Your task to perform on an android device: Search for "usb-a" on amazon.com, select the first entry, and add it to the cart. Image 0: 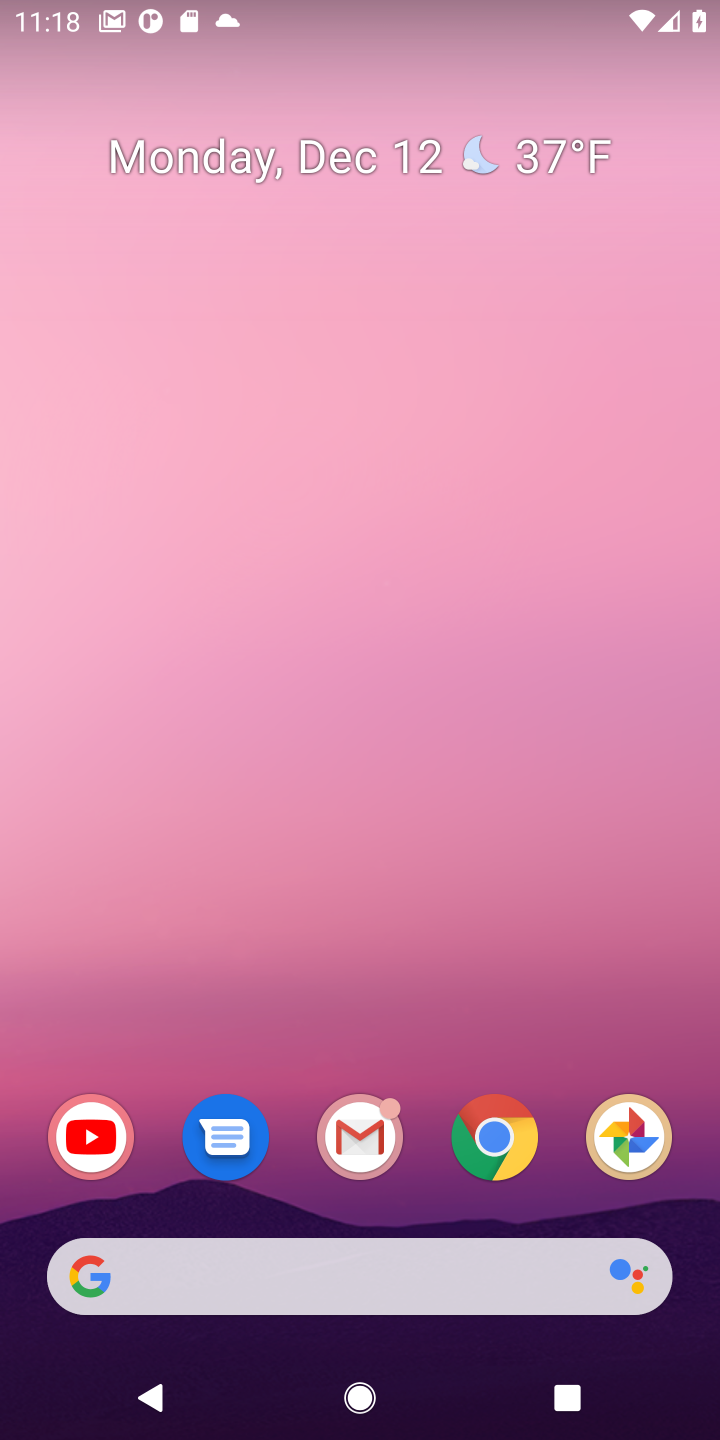
Step 0: click (406, 1297)
Your task to perform on an android device: Search for "usb-a" on amazon.com, select the first entry, and add it to the cart. Image 1: 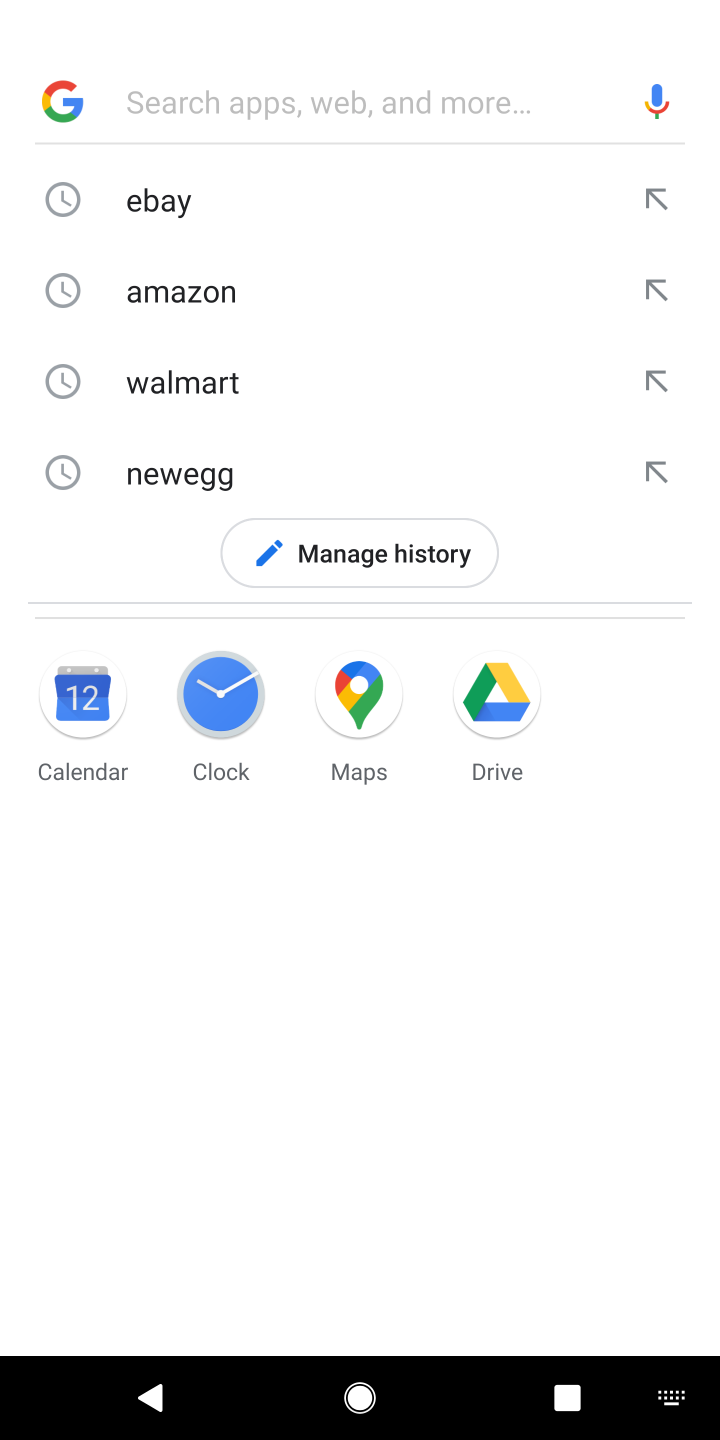
Step 1: click (134, 299)
Your task to perform on an android device: Search for "usb-a" on amazon.com, select the first entry, and add it to the cart. Image 2: 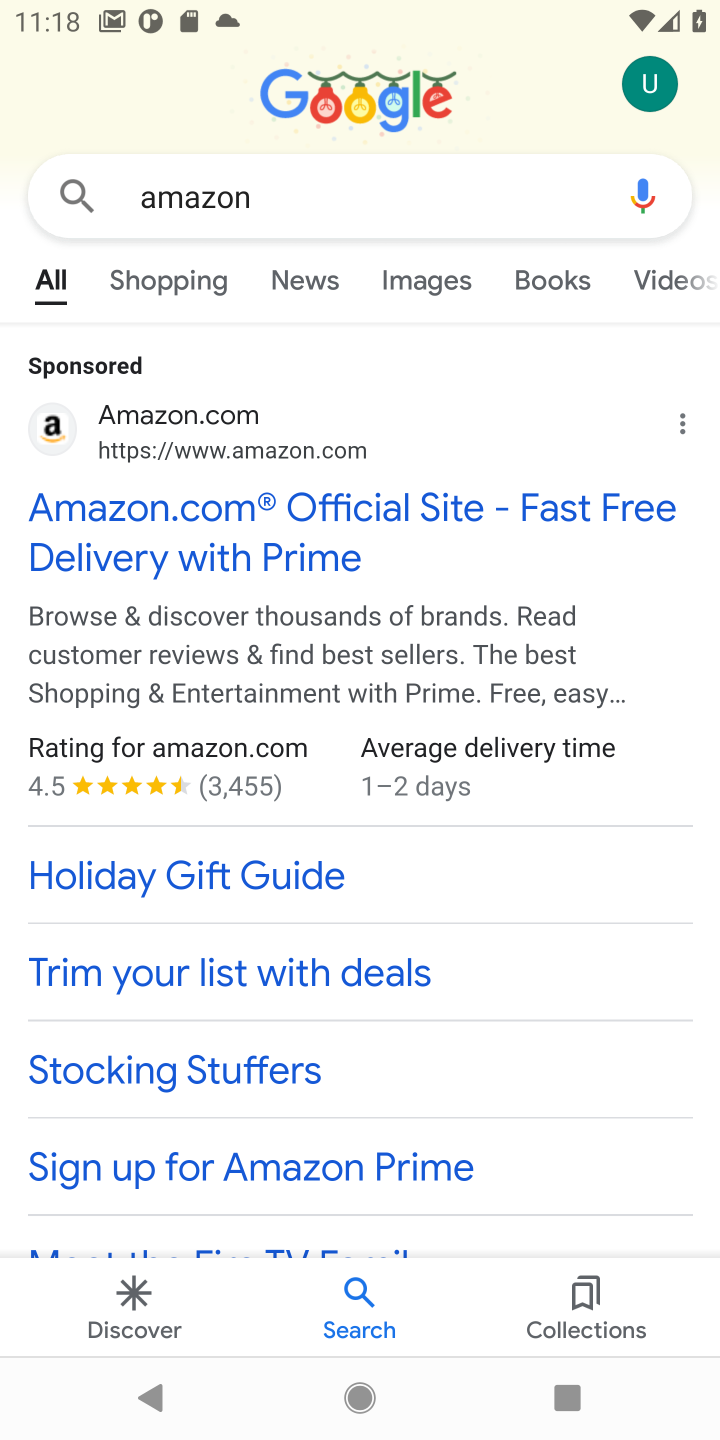
Step 2: click (138, 530)
Your task to perform on an android device: Search for "usb-a" on amazon.com, select the first entry, and add it to the cart. Image 3: 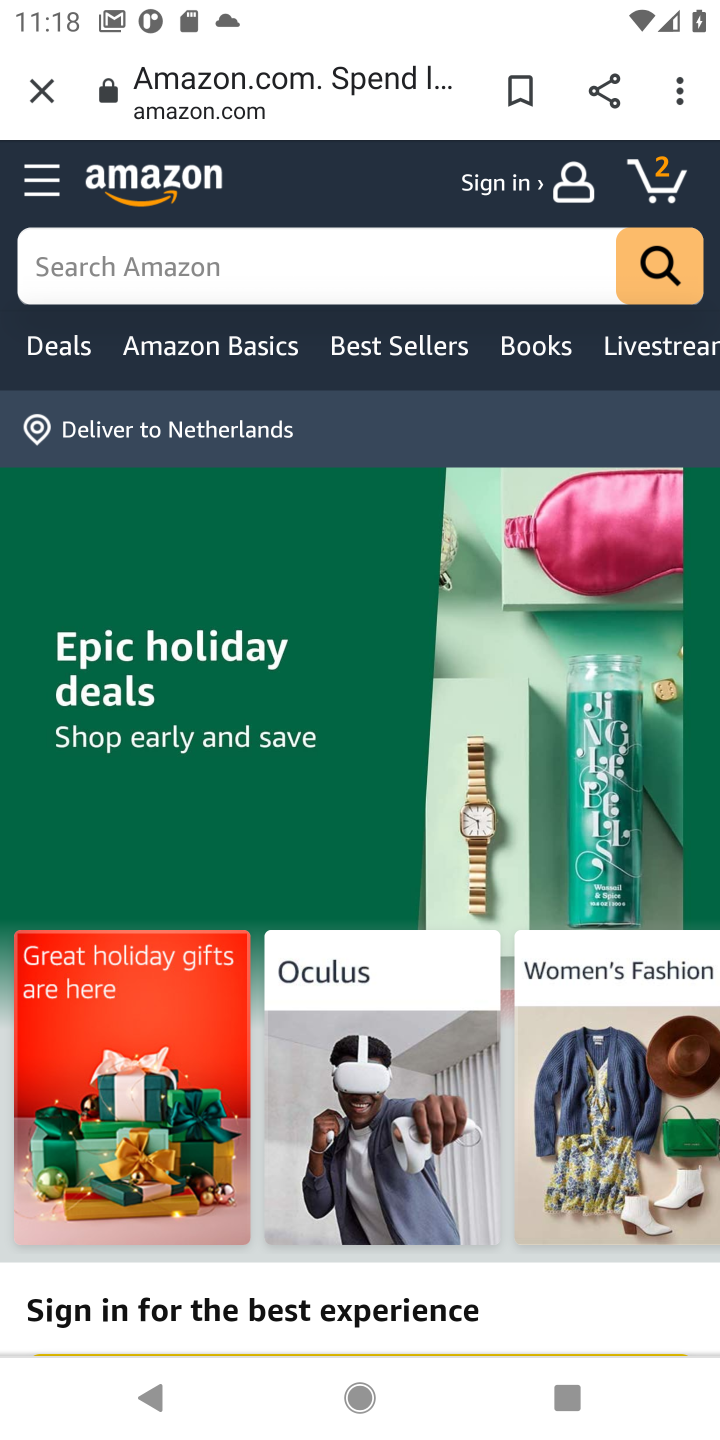
Step 3: click (298, 271)
Your task to perform on an android device: Search for "usb-a" on amazon.com, select the first entry, and add it to the cart. Image 4: 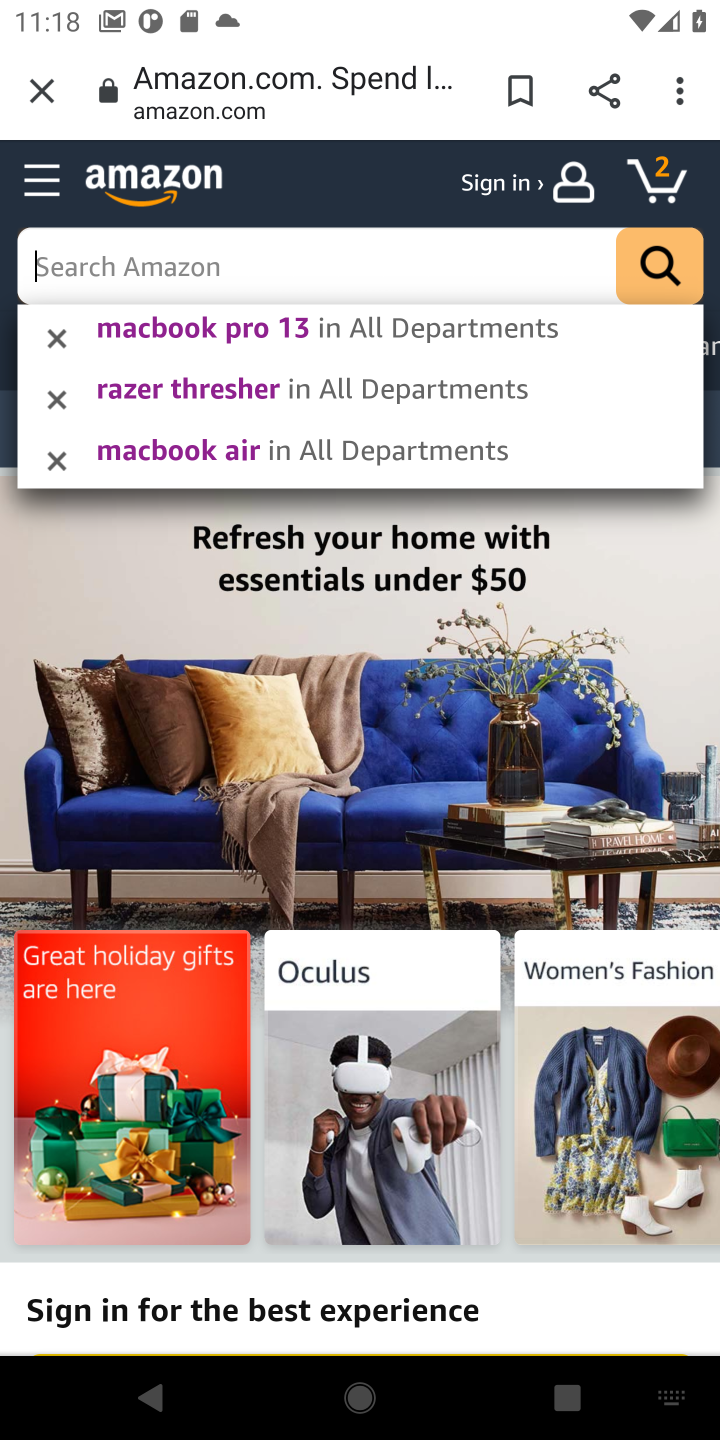
Step 4: type "usb-a"
Your task to perform on an android device: Search for "usb-a" on amazon.com, select the first entry, and add it to the cart. Image 5: 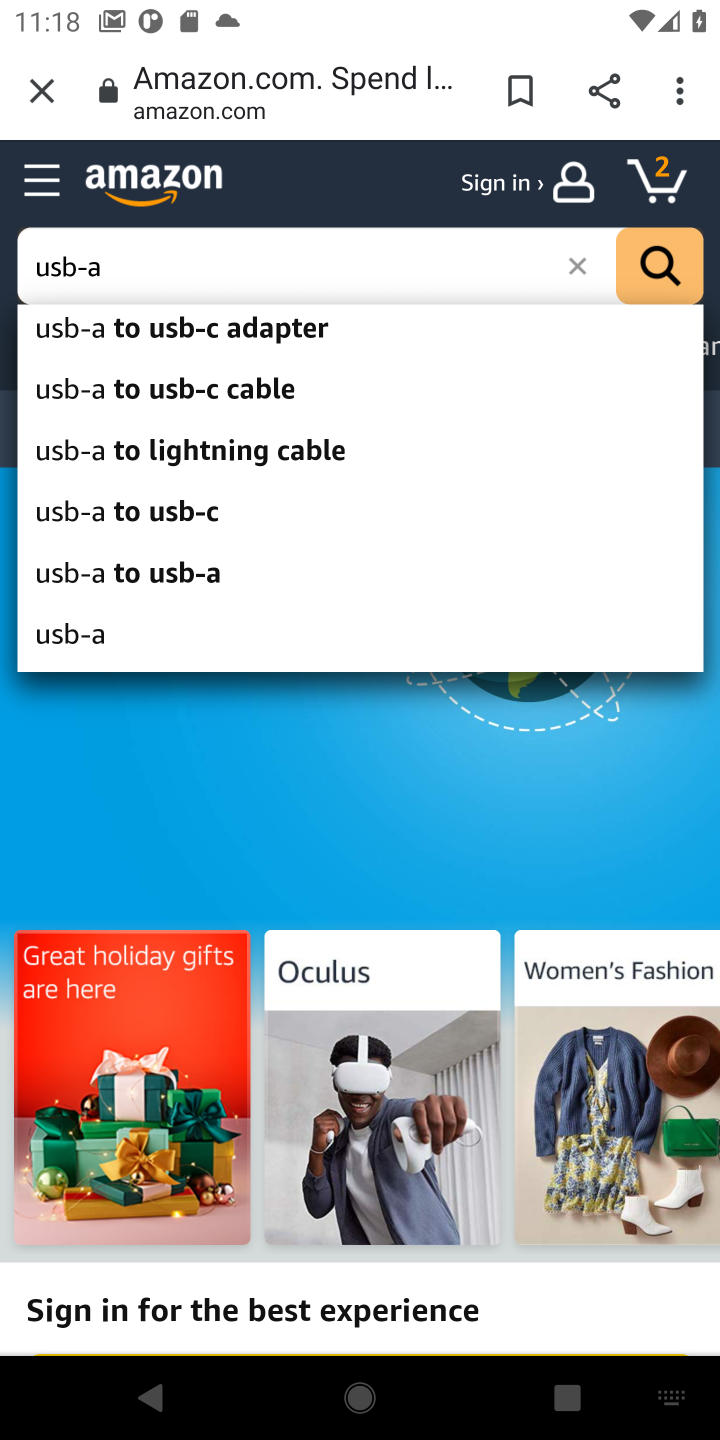
Step 5: click (657, 267)
Your task to perform on an android device: Search for "usb-a" on amazon.com, select the first entry, and add it to the cart. Image 6: 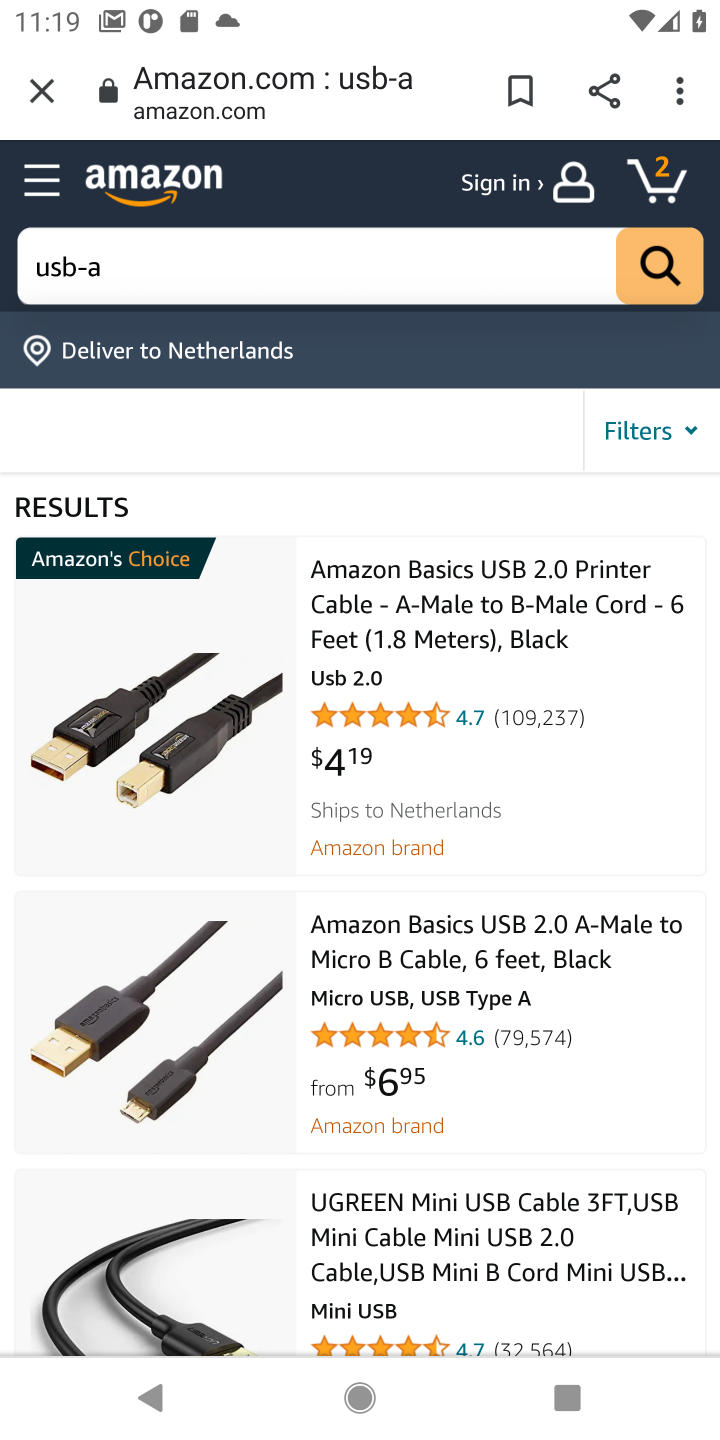
Step 6: click (362, 668)
Your task to perform on an android device: Search for "usb-a" on amazon.com, select the first entry, and add it to the cart. Image 7: 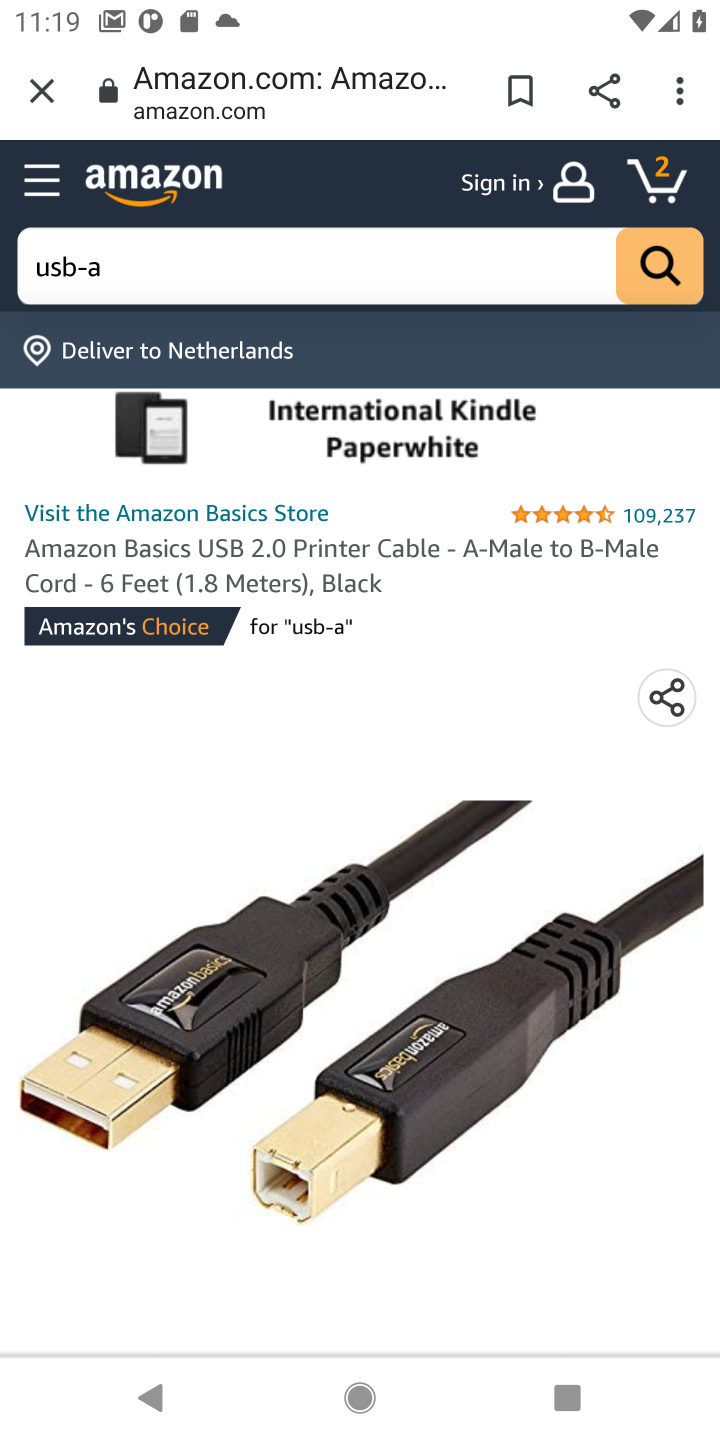
Step 7: drag from (405, 1146) to (382, 447)
Your task to perform on an android device: Search for "usb-a" on amazon.com, select the first entry, and add it to the cart. Image 8: 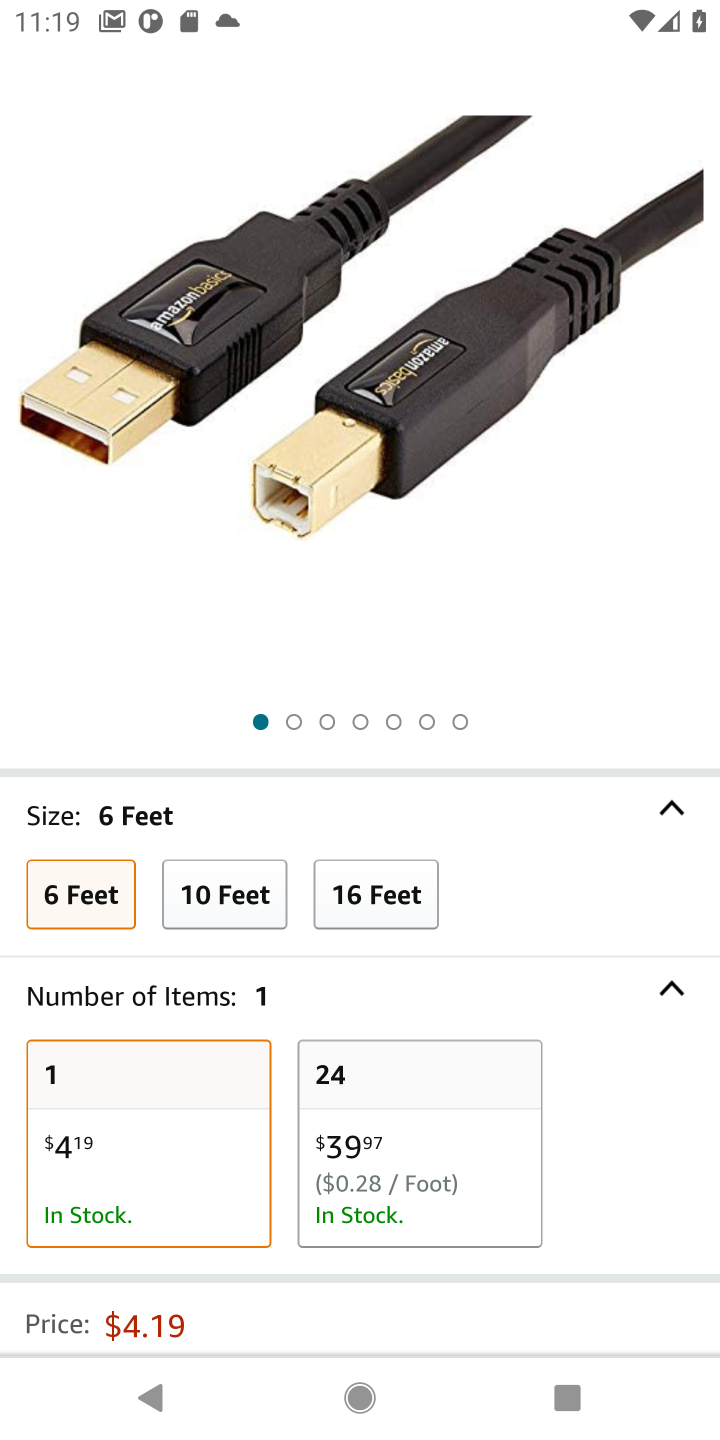
Step 8: drag from (665, 1230) to (446, 540)
Your task to perform on an android device: Search for "usb-a" on amazon.com, select the first entry, and add it to the cart. Image 9: 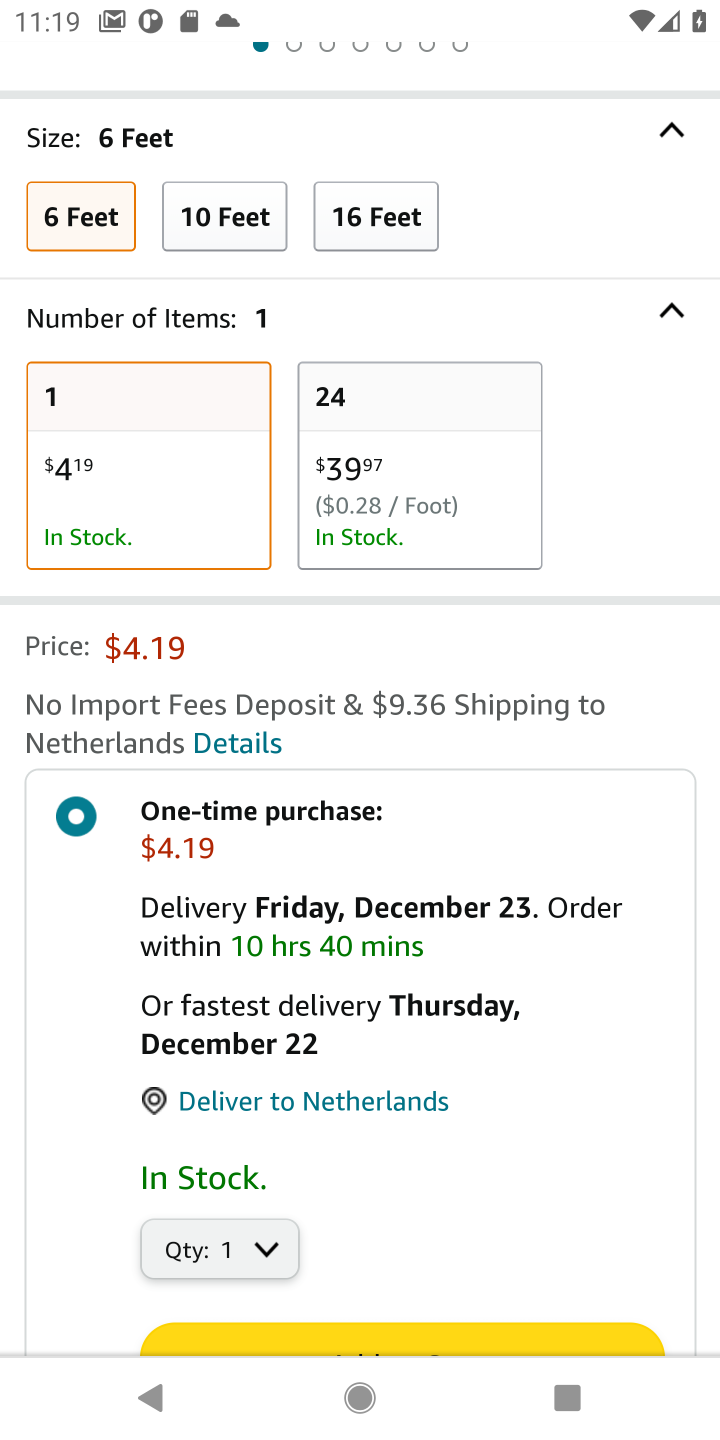
Step 9: drag from (454, 1287) to (408, 586)
Your task to perform on an android device: Search for "usb-a" on amazon.com, select the first entry, and add it to the cart. Image 10: 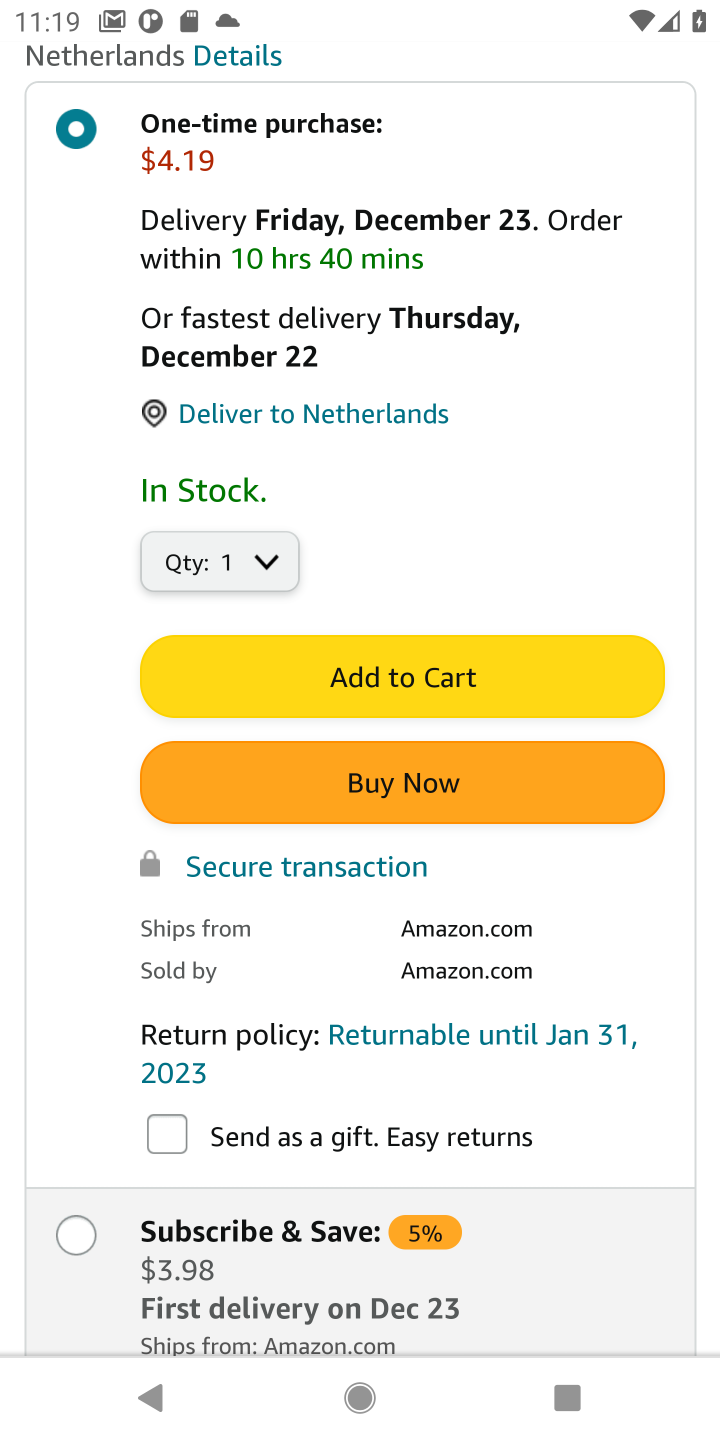
Step 10: click (424, 684)
Your task to perform on an android device: Search for "usb-a" on amazon.com, select the first entry, and add it to the cart. Image 11: 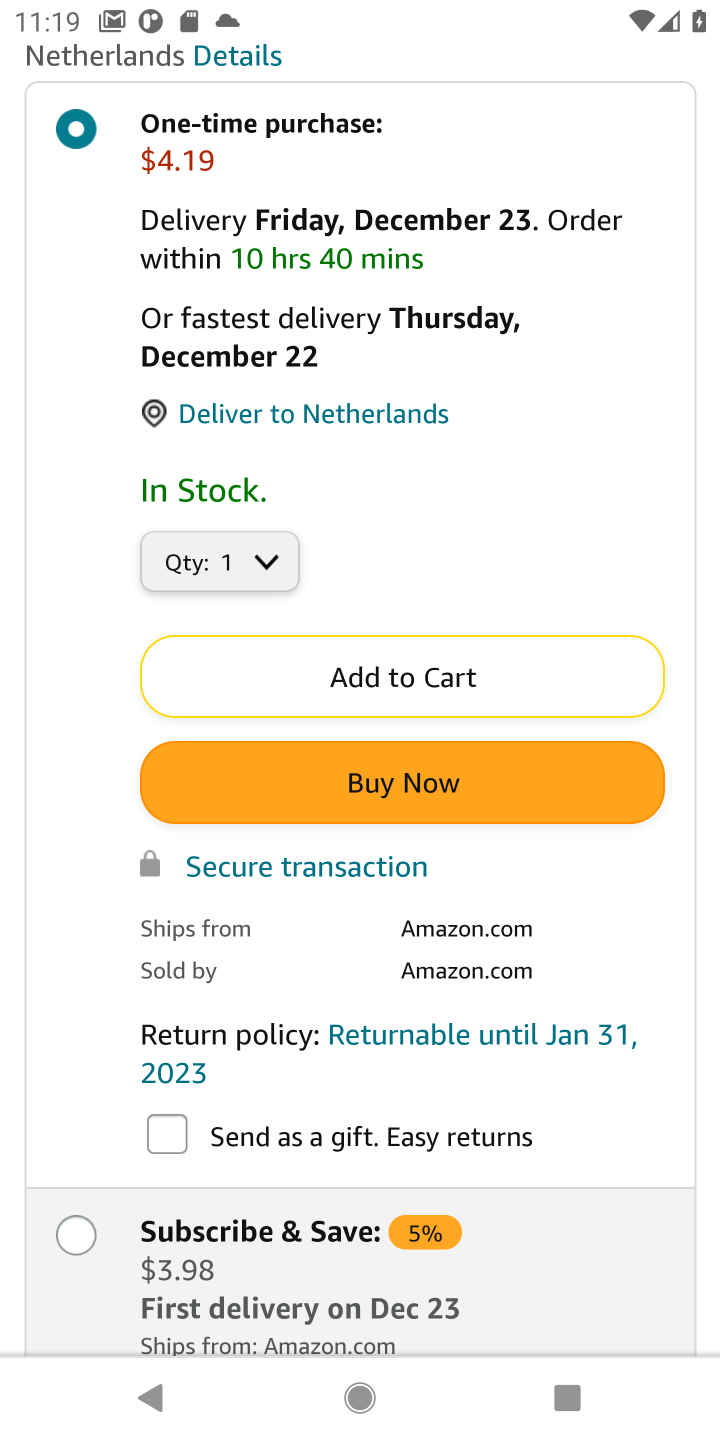
Step 11: task complete